Your task to perform on an android device: Go to location settings Image 0: 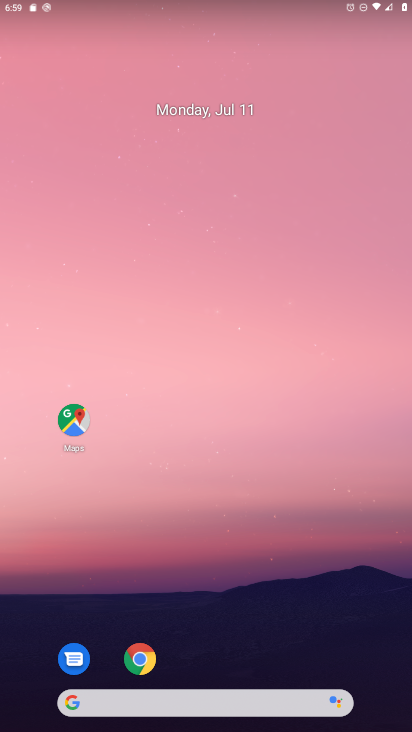
Step 0: drag from (393, 675) to (347, 91)
Your task to perform on an android device: Go to location settings Image 1: 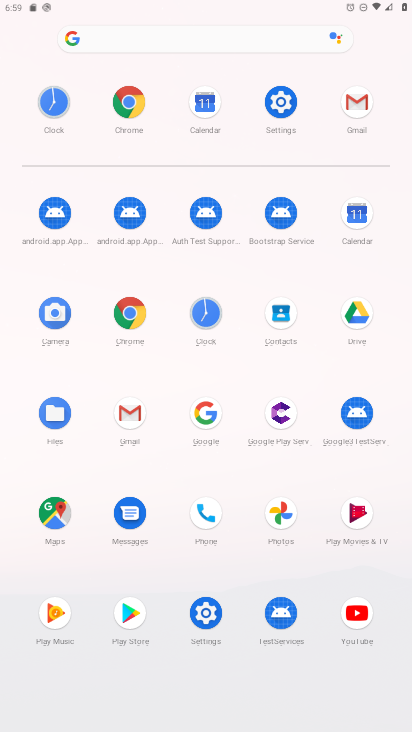
Step 1: click (206, 613)
Your task to perform on an android device: Go to location settings Image 2: 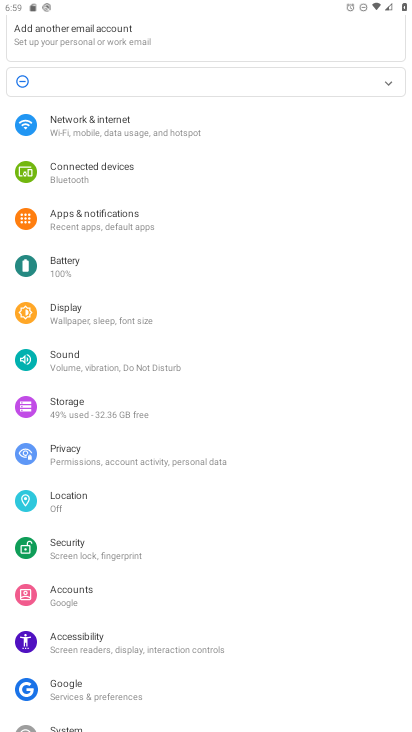
Step 2: click (77, 496)
Your task to perform on an android device: Go to location settings Image 3: 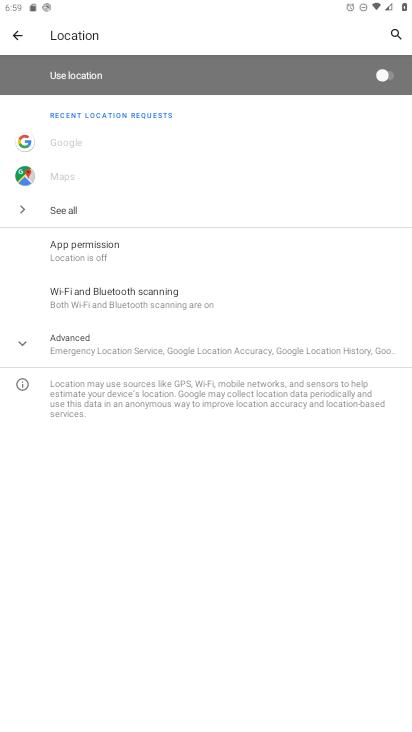
Step 3: task complete